Your task to perform on an android device: Clear all items from cart on costco. Add razer blade to the cart on costco Image 0: 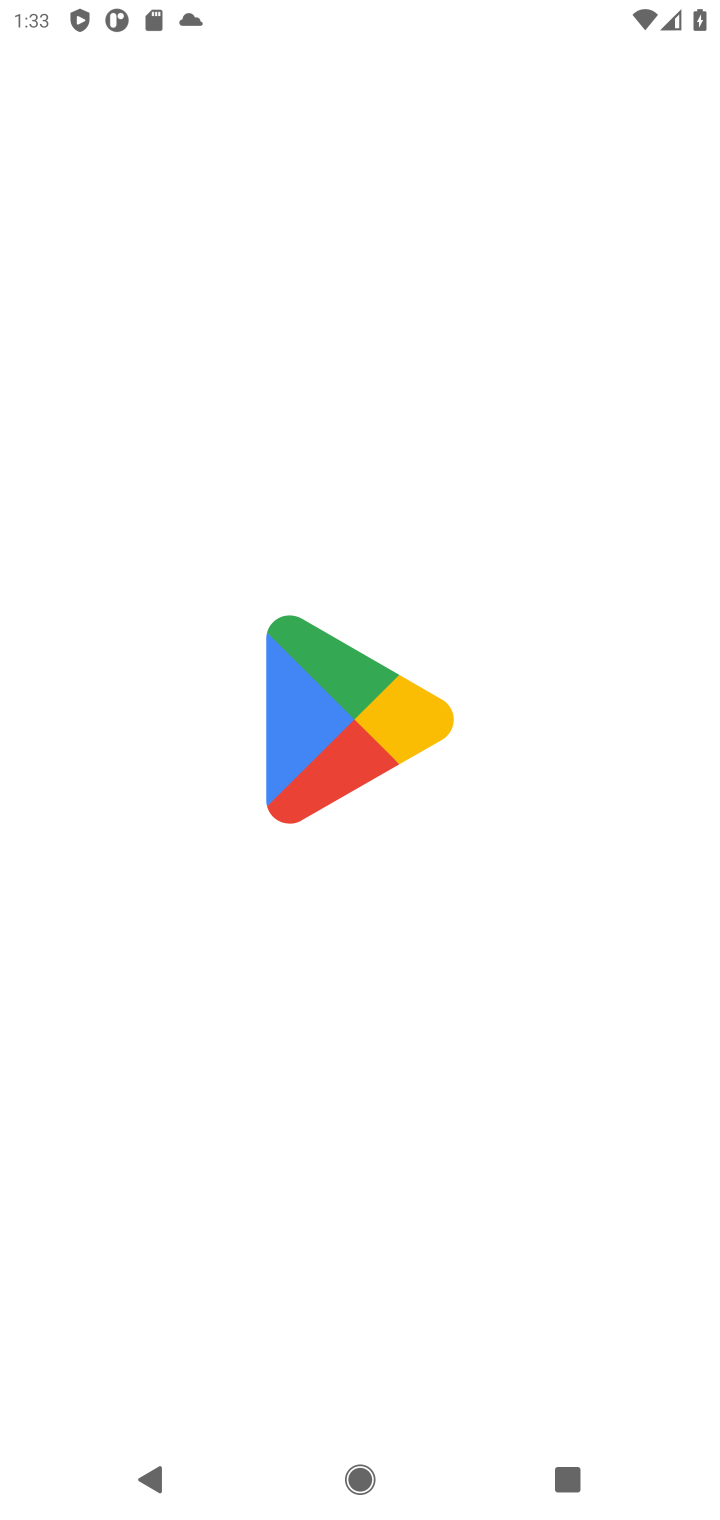
Step 0: press home button
Your task to perform on an android device: Clear all items from cart on costco. Add razer blade to the cart on costco Image 1: 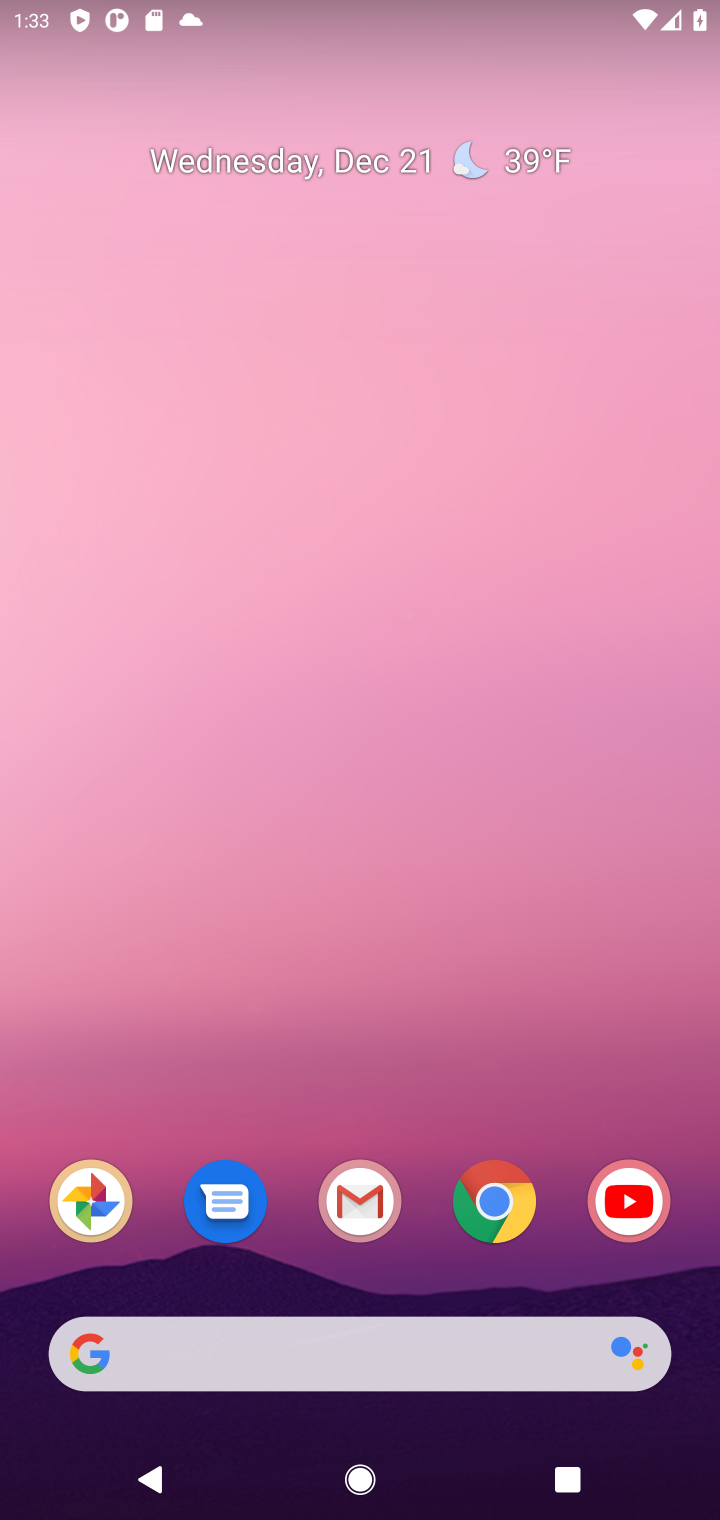
Step 1: click (505, 1210)
Your task to perform on an android device: Clear all items from cart on costco. Add razer blade to the cart on costco Image 2: 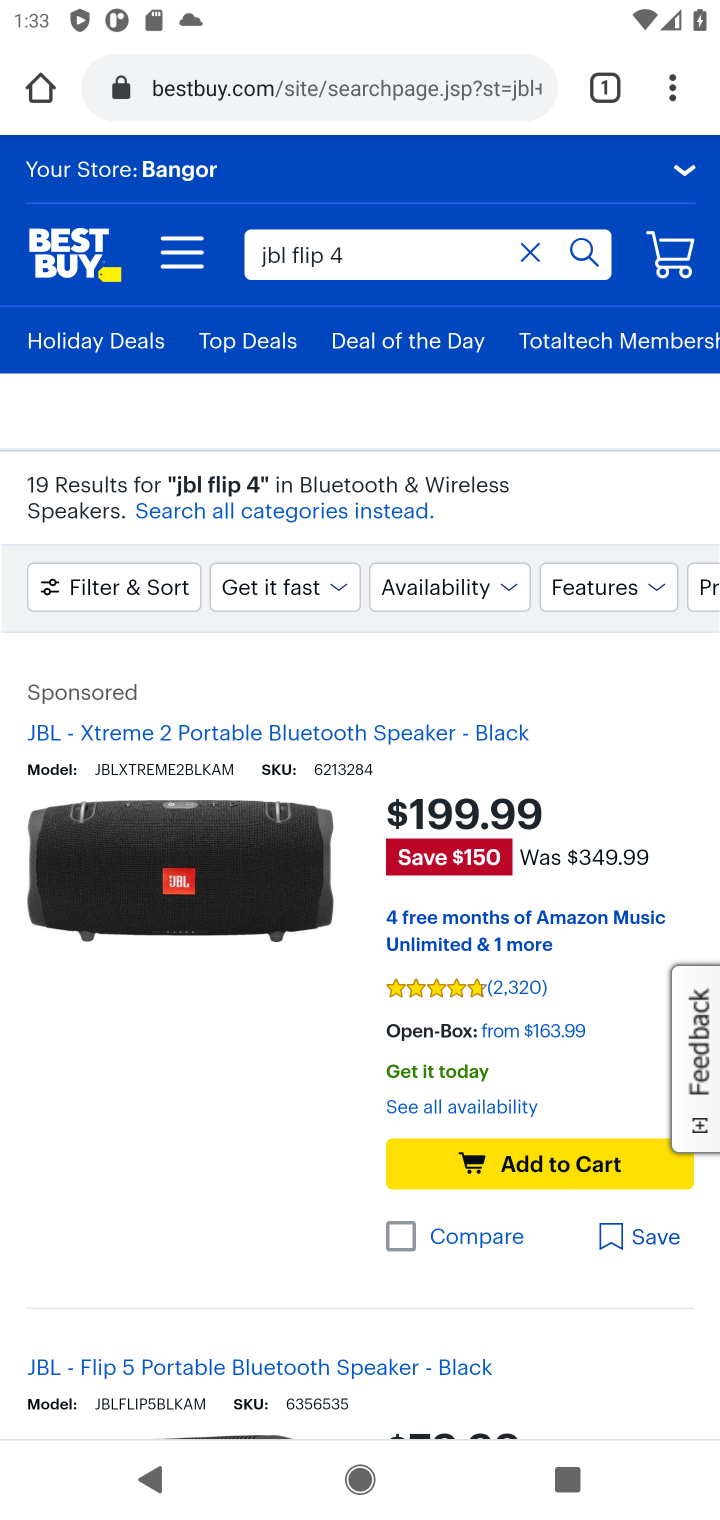
Step 2: click (251, 95)
Your task to perform on an android device: Clear all items from cart on costco. Add razer blade to the cart on costco Image 3: 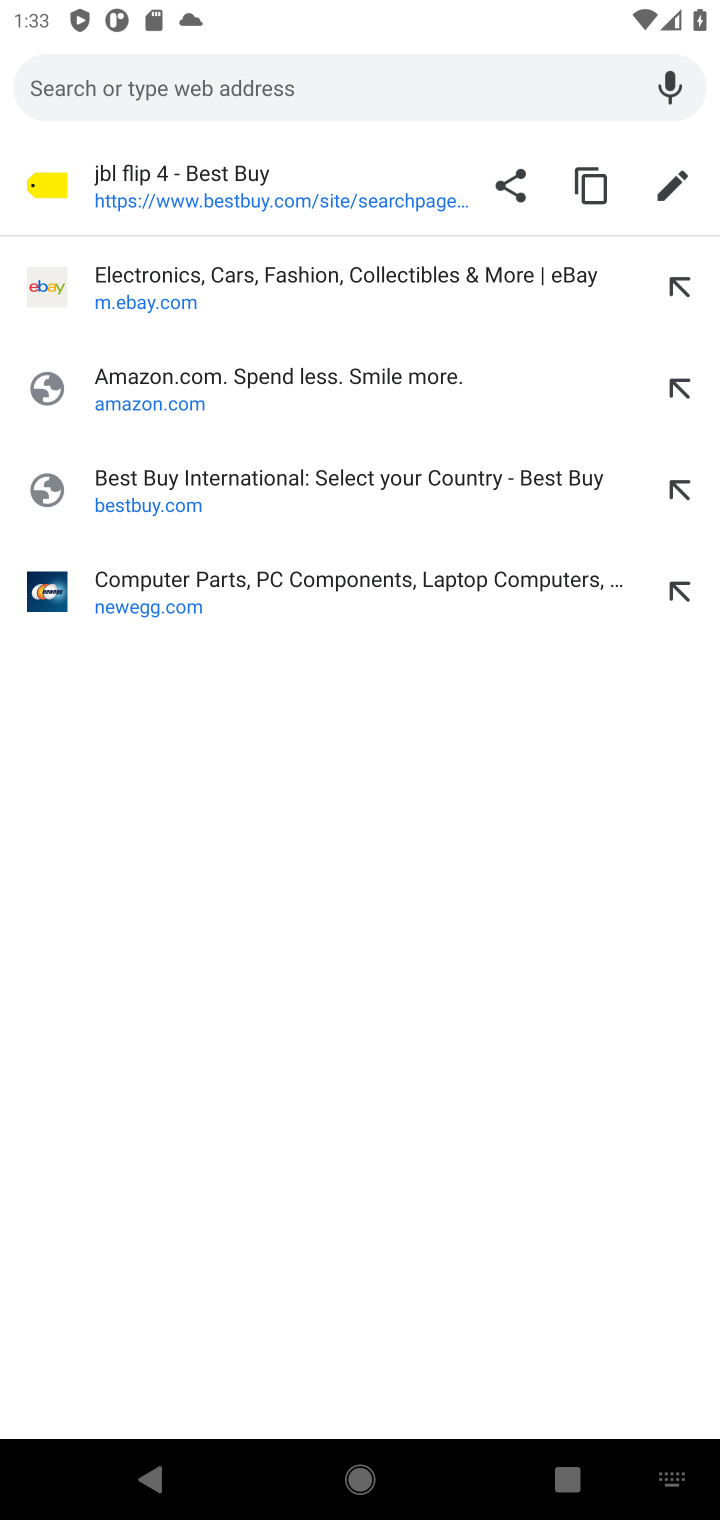
Step 3: type "costco.com"
Your task to perform on an android device: Clear all items from cart on costco. Add razer blade to the cart on costco Image 4: 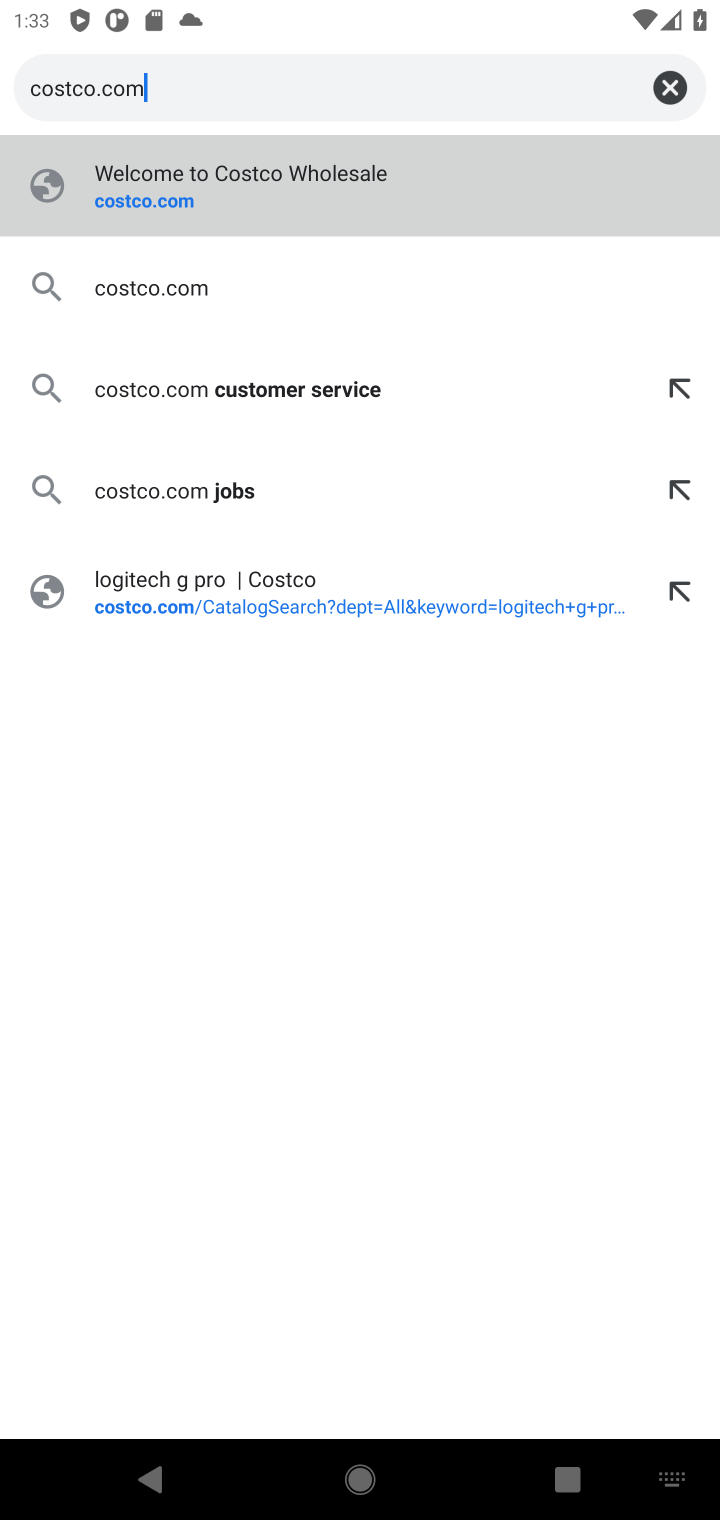
Step 4: click (121, 193)
Your task to perform on an android device: Clear all items from cart on costco. Add razer blade to the cart on costco Image 5: 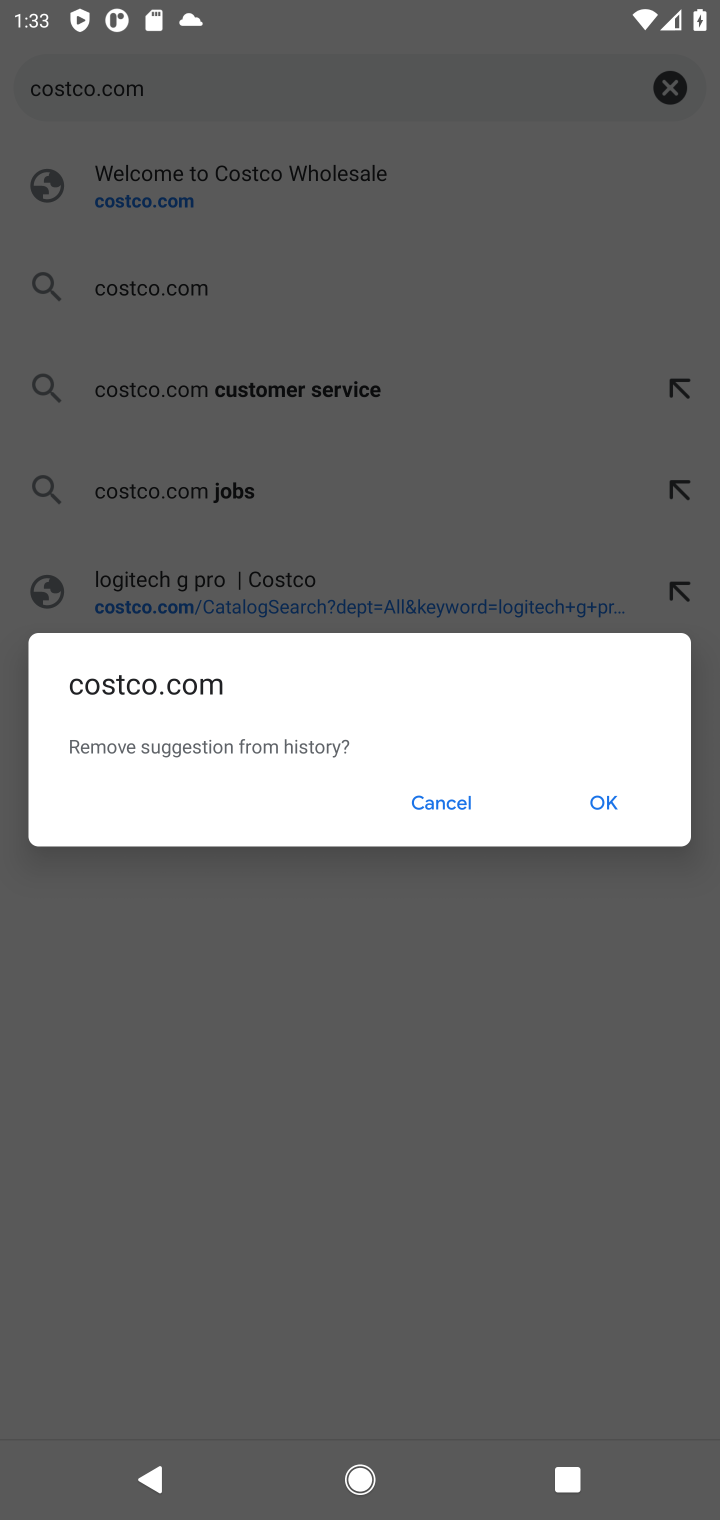
Step 5: click (417, 801)
Your task to perform on an android device: Clear all items from cart on costco. Add razer blade to the cart on costco Image 6: 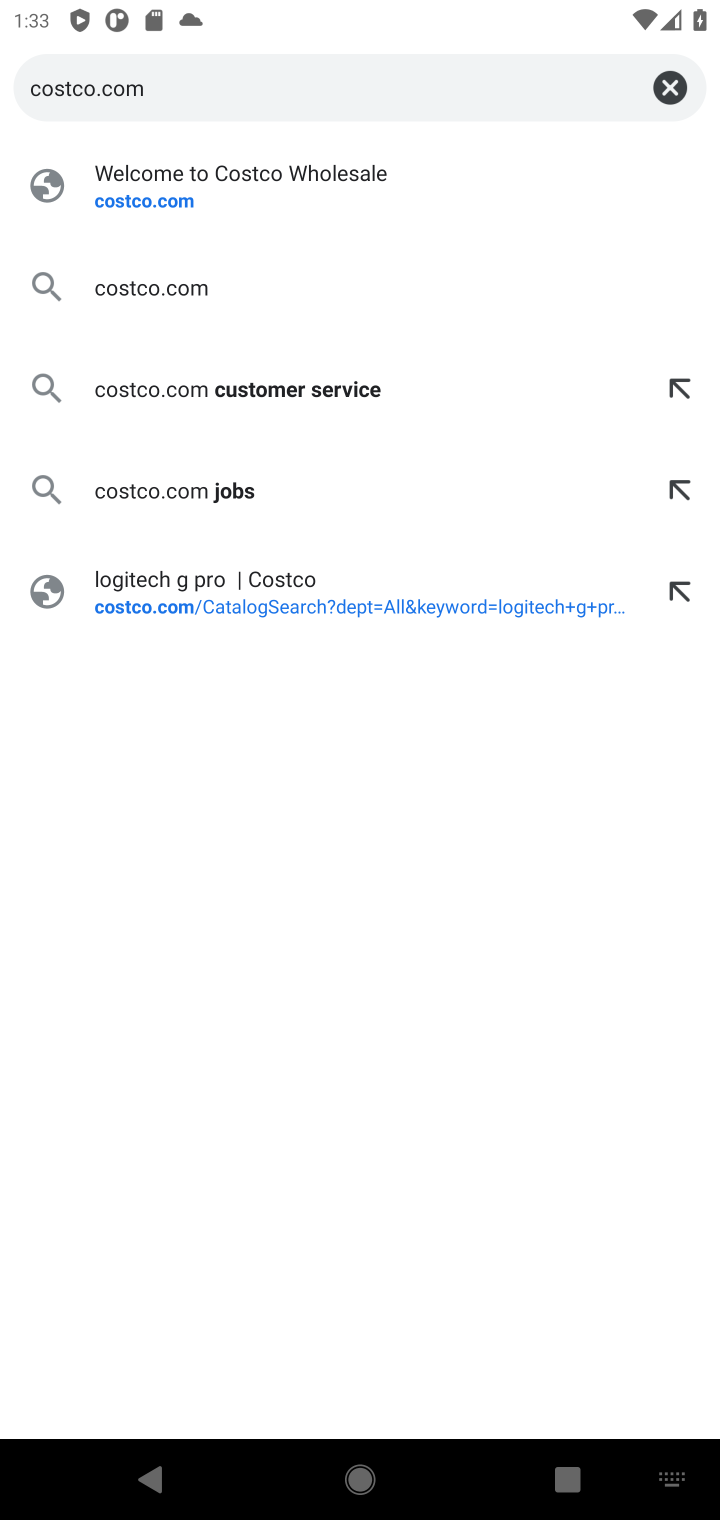
Step 6: click (145, 202)
Your task to perform on an android device: Clear all items from cart on costco. Add razer blade to the cart on costco Image 7: 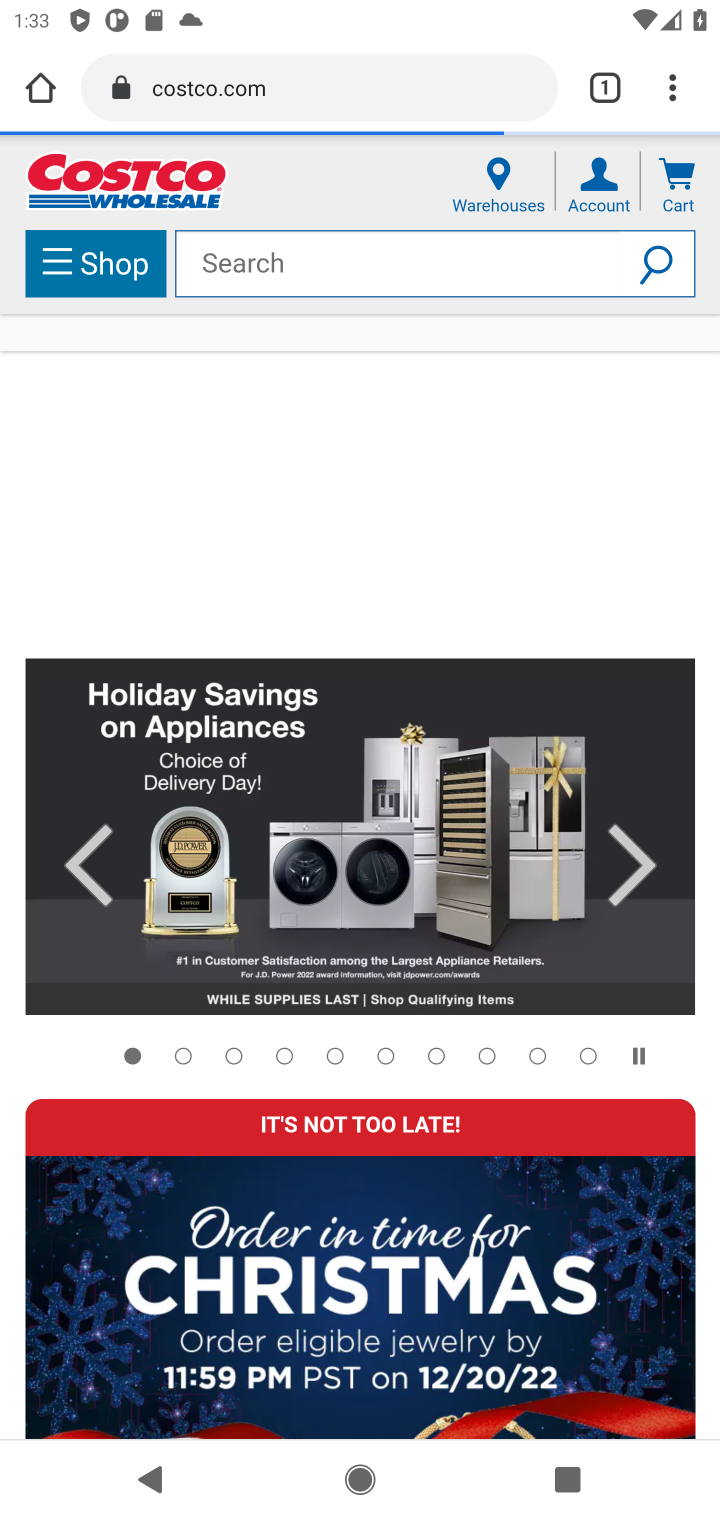
Step 7: click (681, 190)
Your task to perform on an android device: Clear all items from cart on costco. Add razer blade to the cart on costco Image 8: 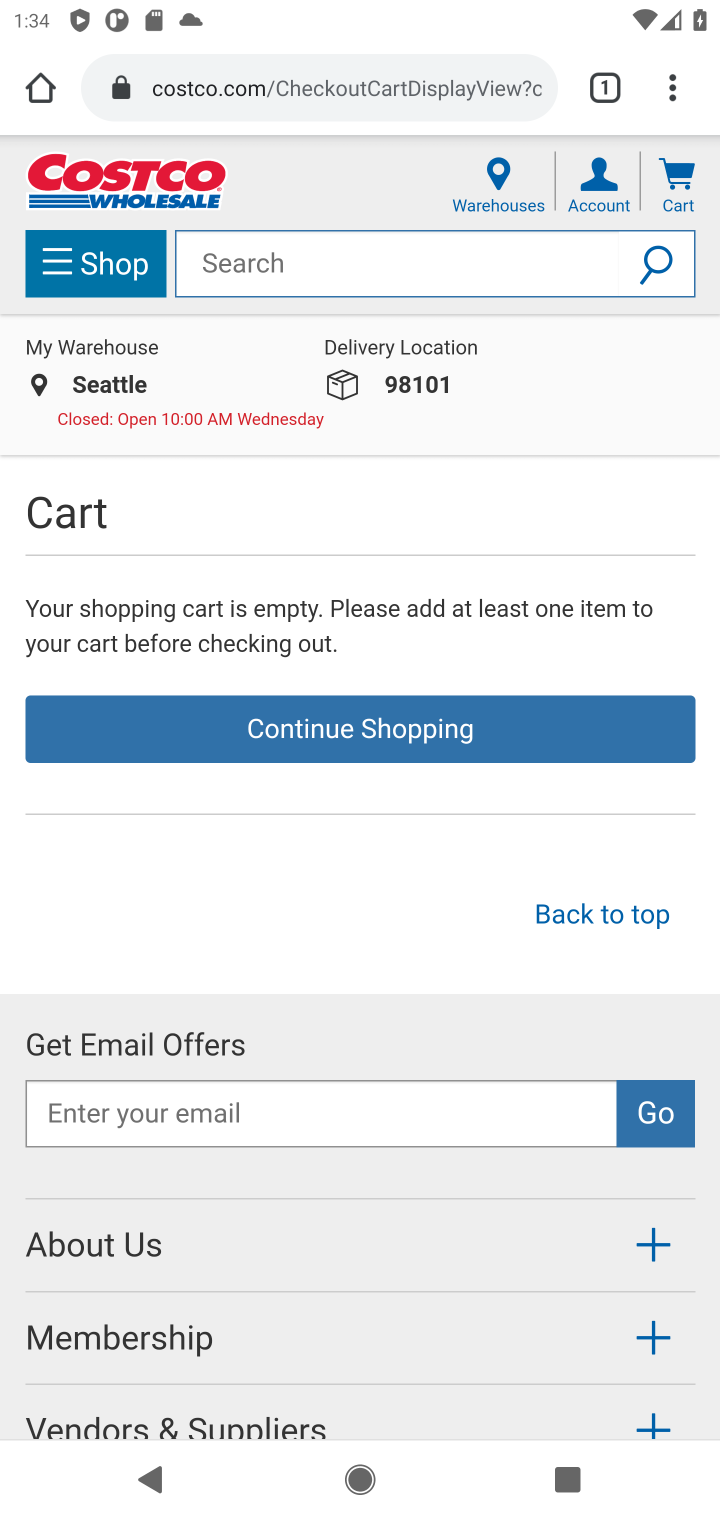
Step 8: click (293, 271)
Your task to perform on an android device: Clear all items from cart on costco. Add razer blade to the cart on costco Image 9: 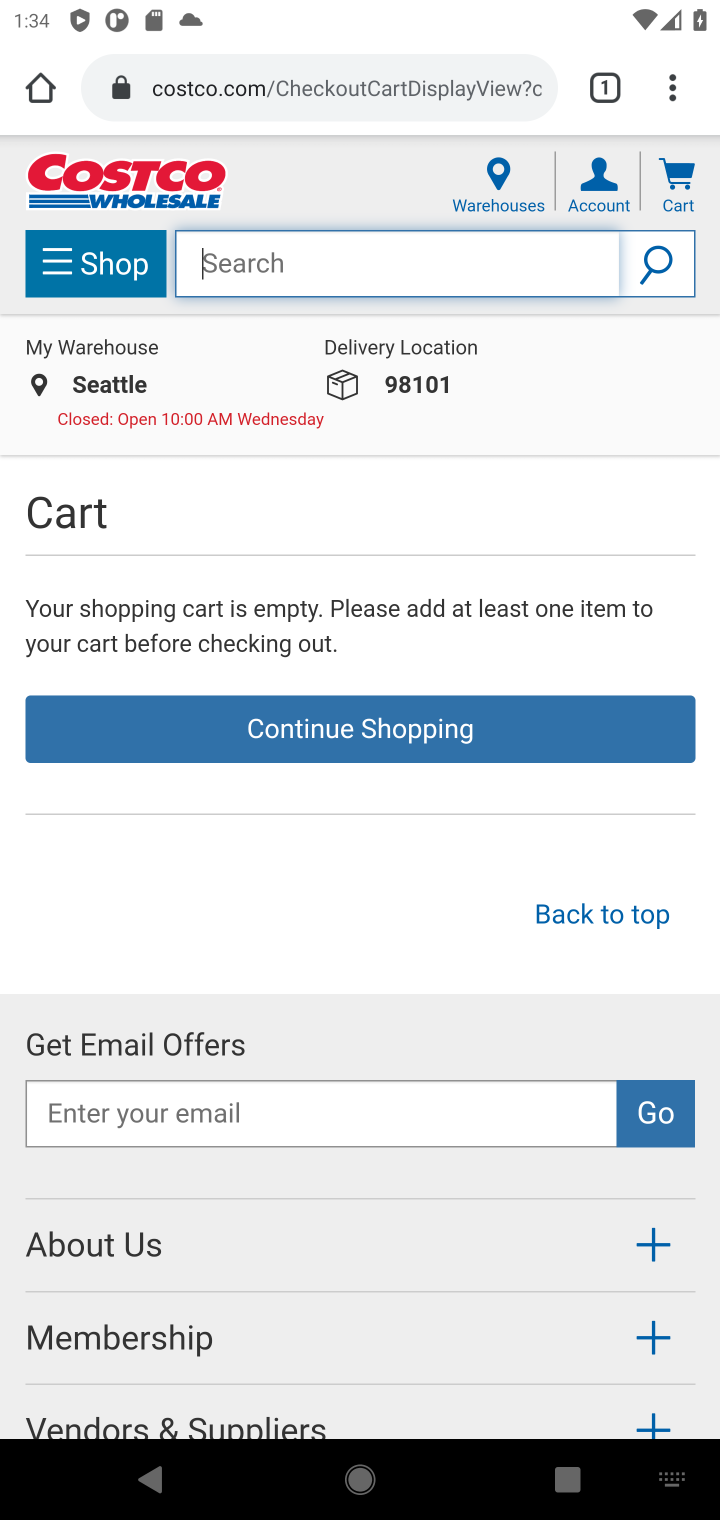
Step 9: type "razer blade"
Your task to perform on an android device: Clear all items from cart on costco. Add razer blade to the cart on costco Image 10: 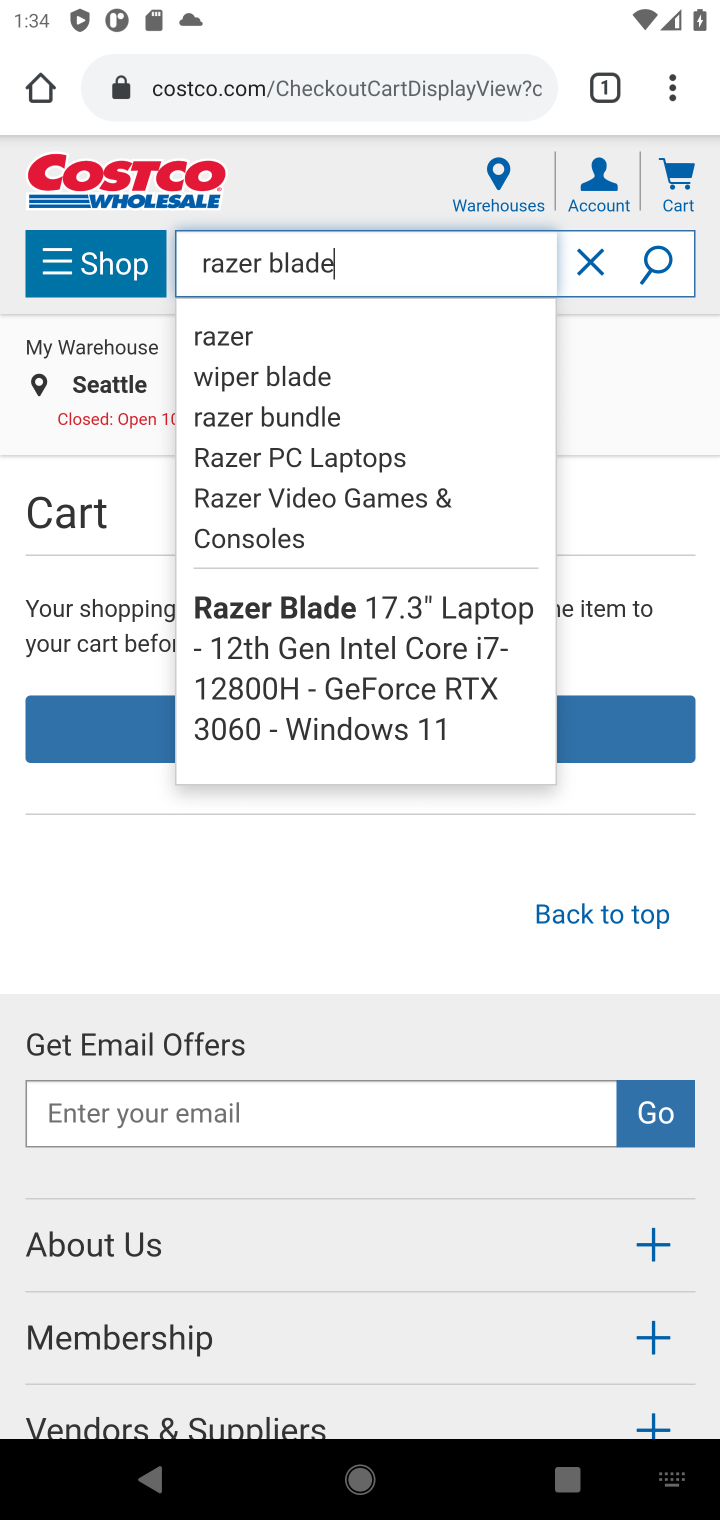
Step 10: click (665, 268)
Your task to perform on an android device: Clear all items from cart on costco. Add razer blade to the cart on costco Image 11: 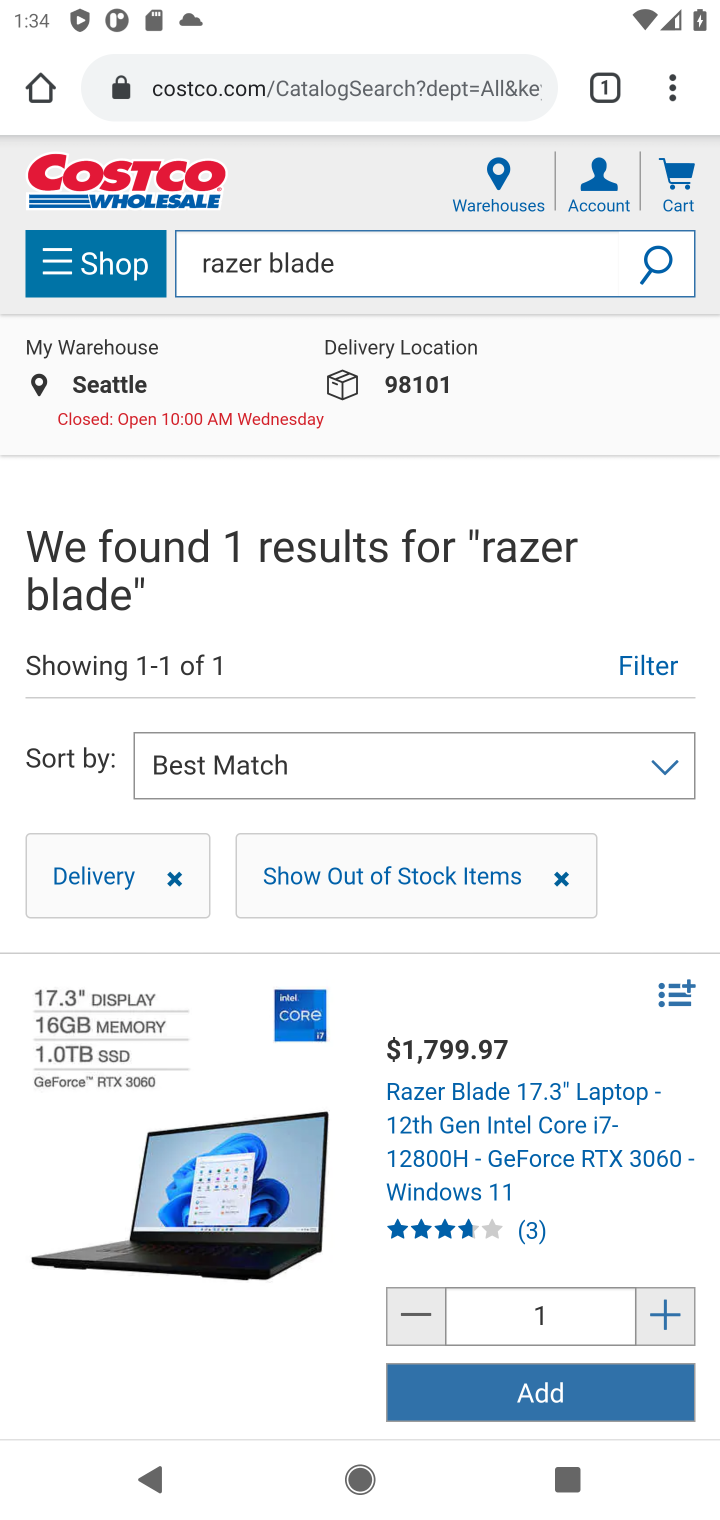
Step 11: drag from (317, 912) to (321, 620)
Your task to perform on an android device: Clear all items from cart on costco. Add razer blade to the cart on costco Image 12: 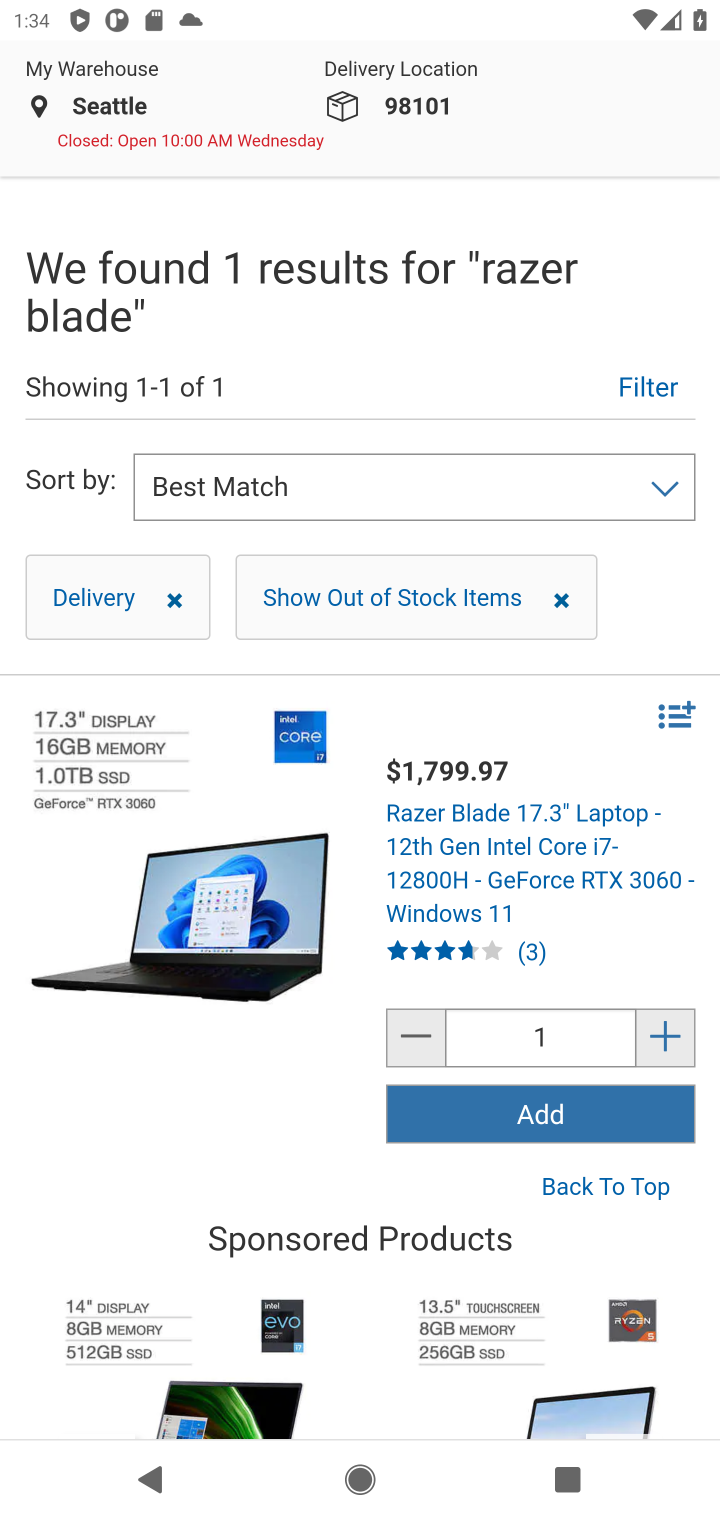
Step 12: drag from (338, 677) to (302, 1064)
Your task to perform on an android device: Clear all items from cart on costco. Add razer blade to the cart on costco Image 13: 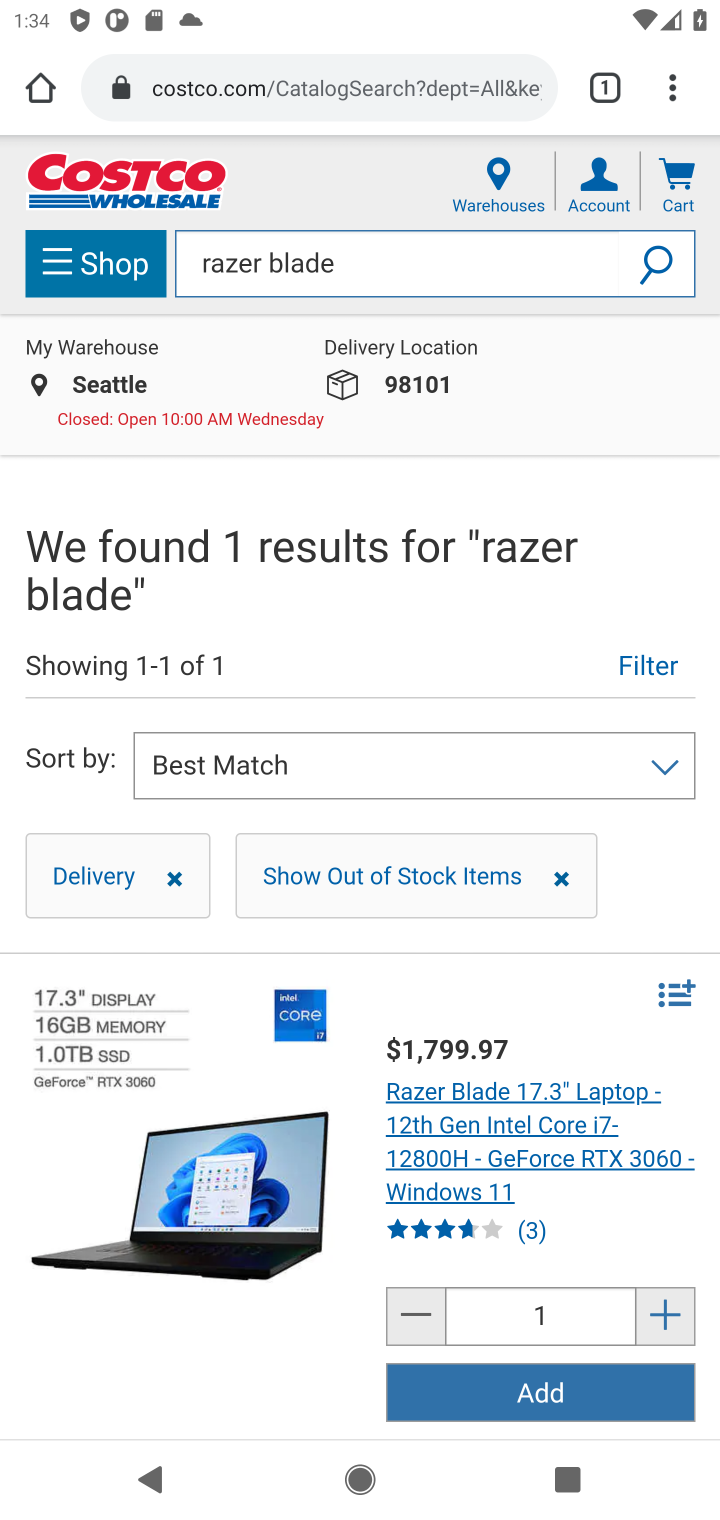
Step 13: click (679, 181)
Your task to perform on an android device: Clear all items from cart on costco. Add razer blade to the cart on costco Image 14: 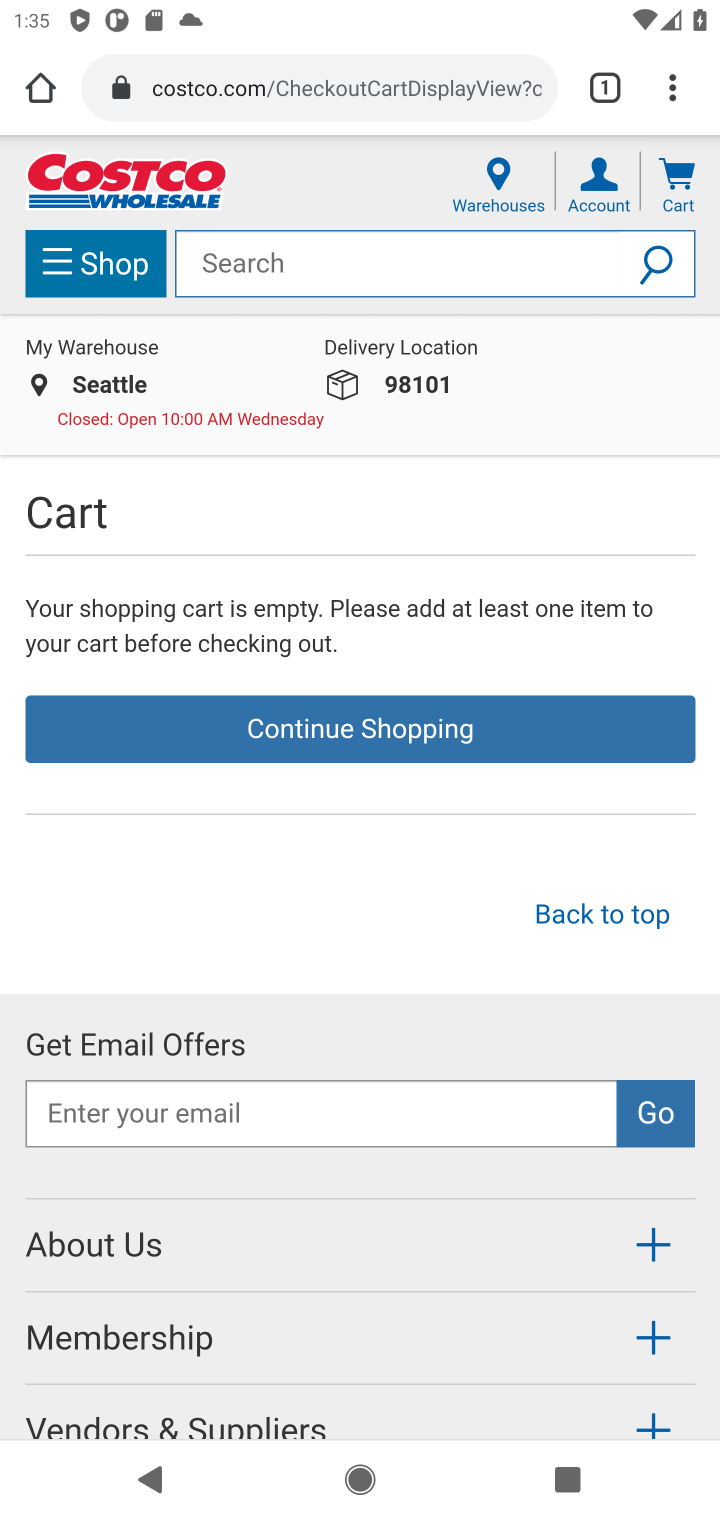
Step 14: click (269, 280)
Your task to perform on an android device: Clear all items from cart on costco. Add razer blade to the cart on costco Image 15: 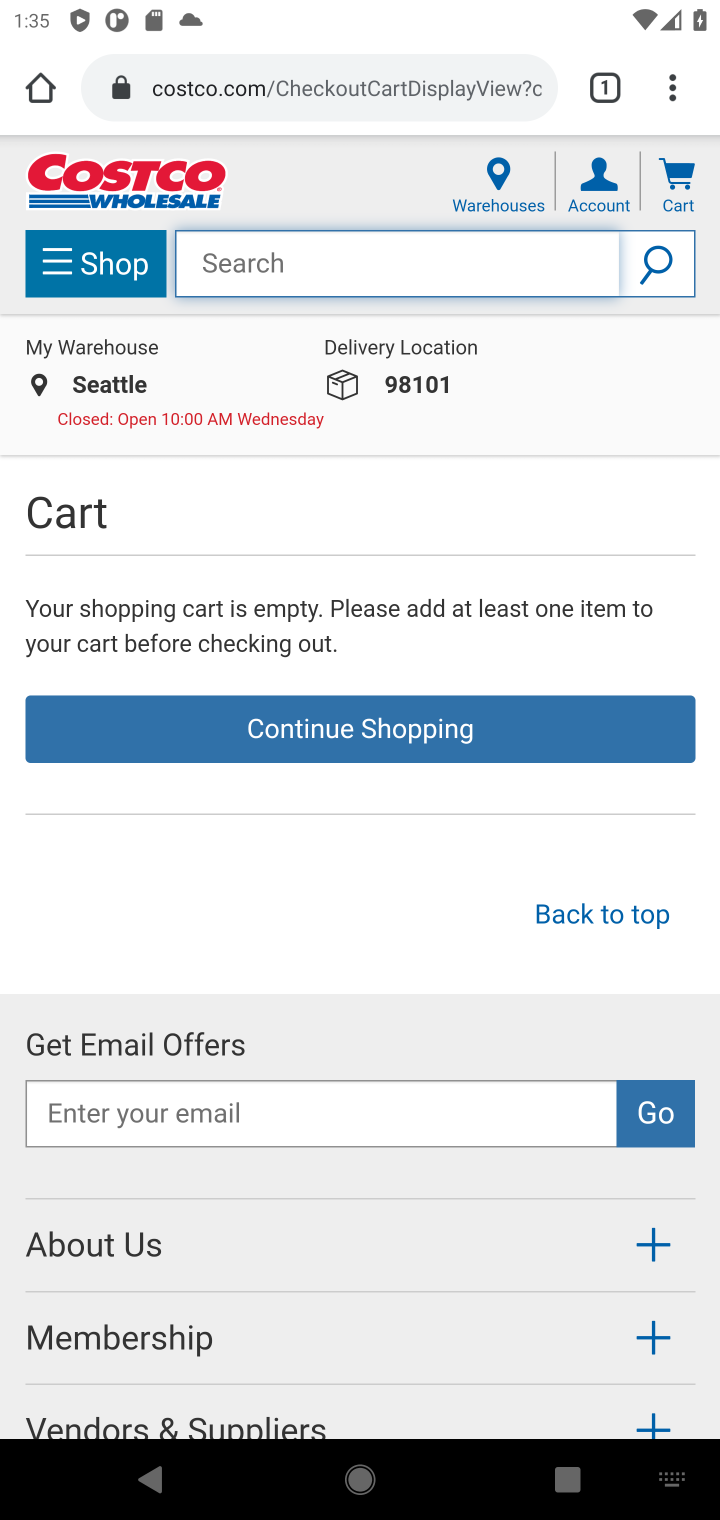
Step 15: type "razer blade"
Your task to perform on an android device: Clear all items from cart on costco. Add razer blade to the cart on costco Image 16: 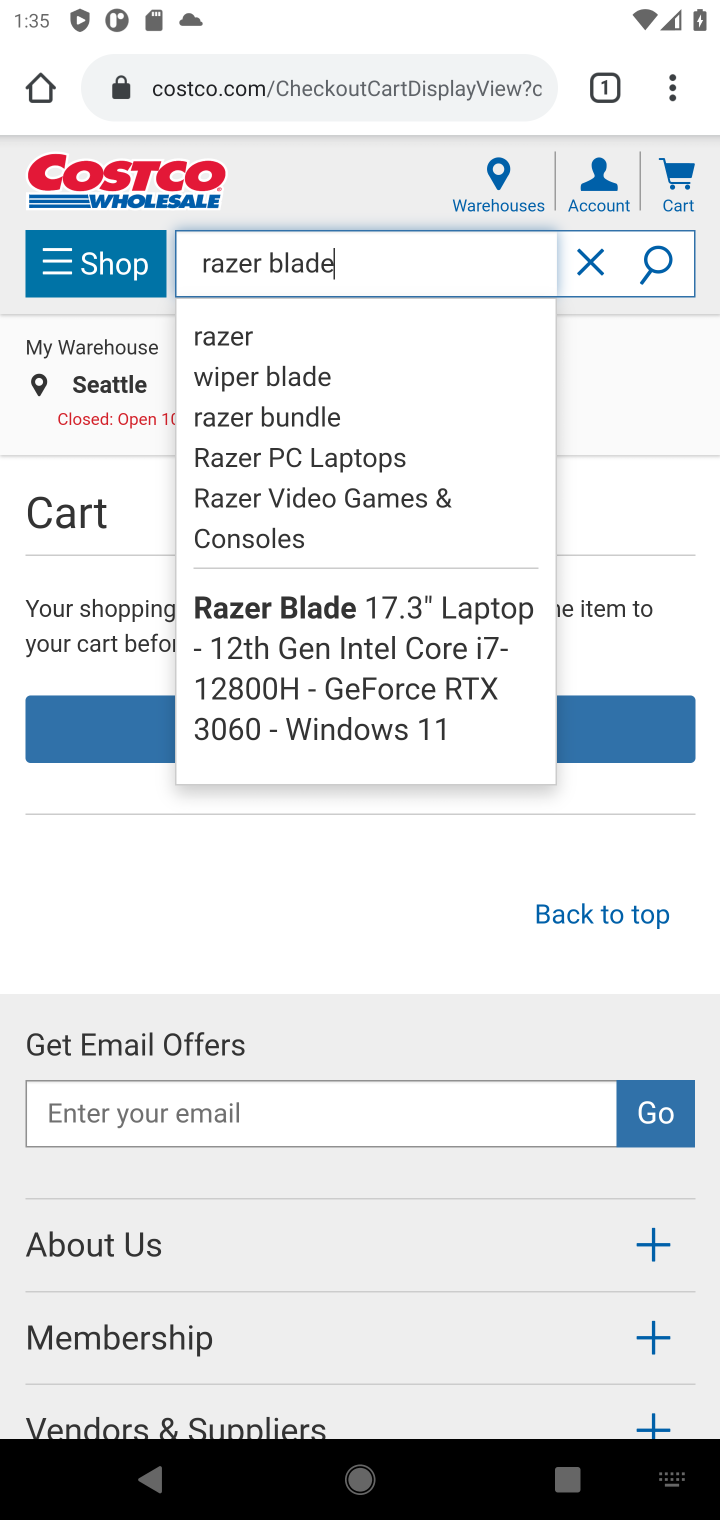
Step 16: click (665, 267)
Your task to perform on an android device: Clear all items from cart on costco. Add razer blade to the cart on costco Image 17: 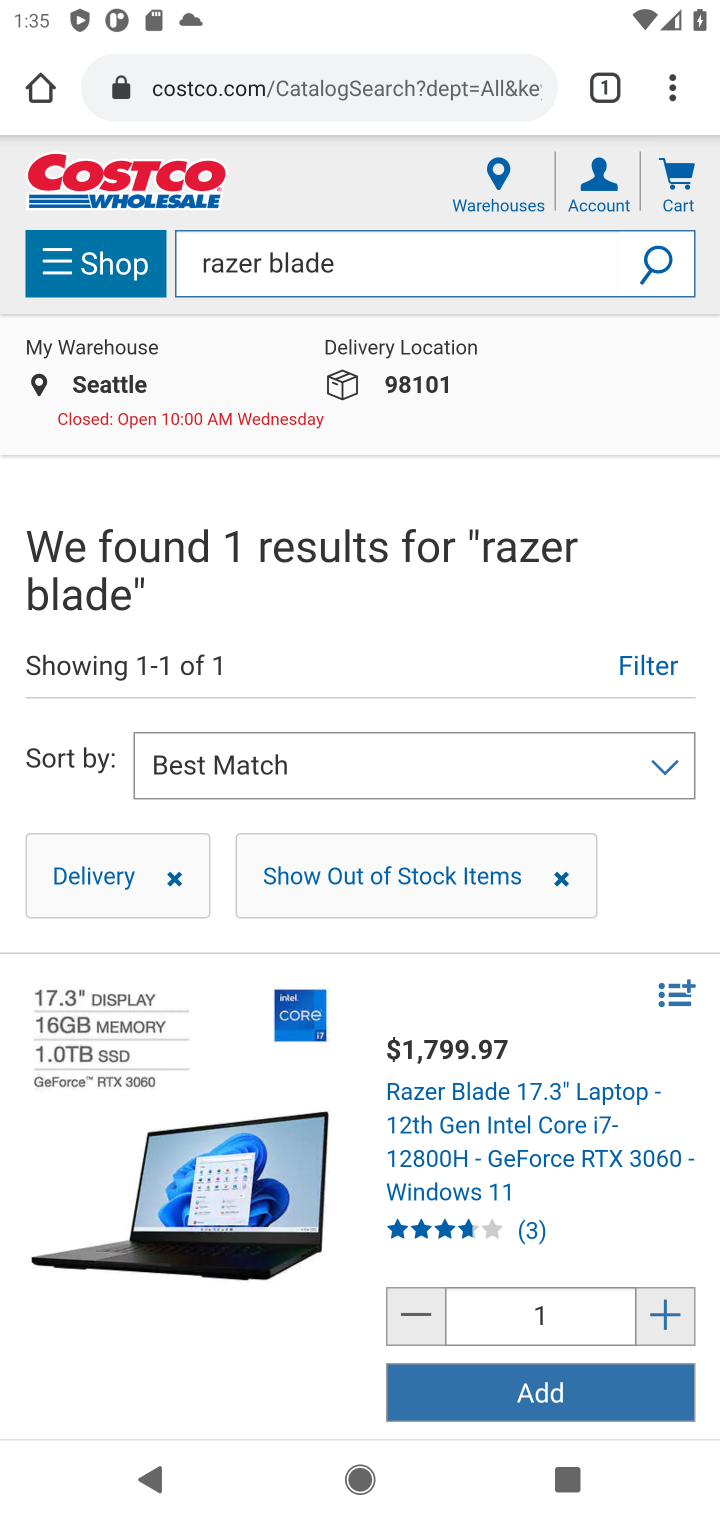
Step 17: click (476, 1397)
Your task to perform on an android device: Clear all items from cart on costco. Add razer blade to the cart on costco Image 18: 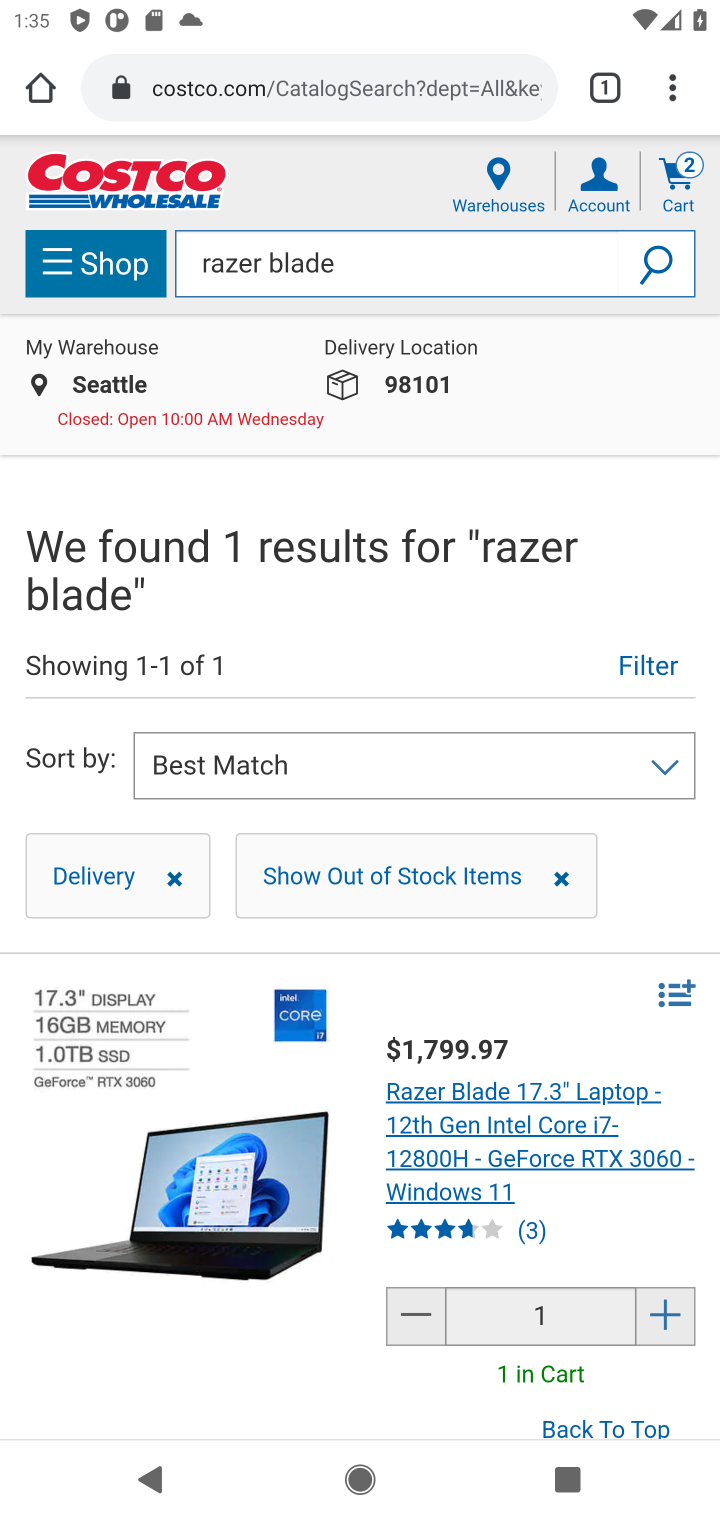
Step 18: task complete